Your task to perform on an android device: turn on the 24-hour format for clock Image 0: 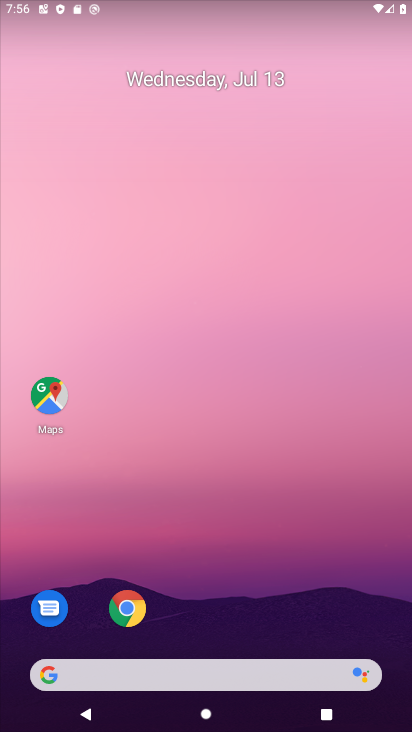
Step 0: drag from (186, 635) to (125, 95)
Your task to perform on an android device: turn on the 24-hour format for clock Image 1: 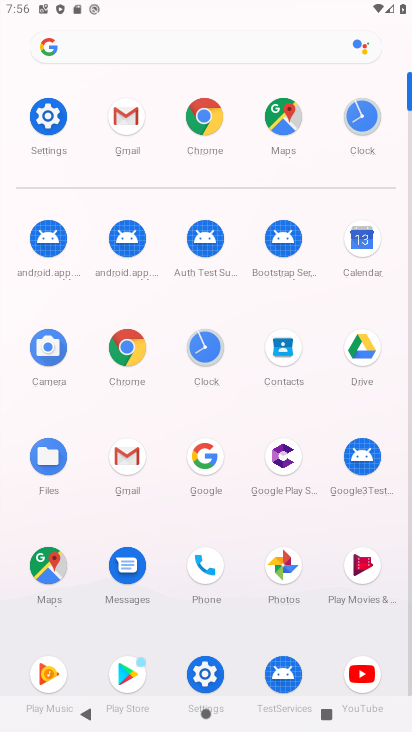
Step 1: click (189, 365)
Your task to perform on an android device: turn on the 24-hour format for clock Image 2: 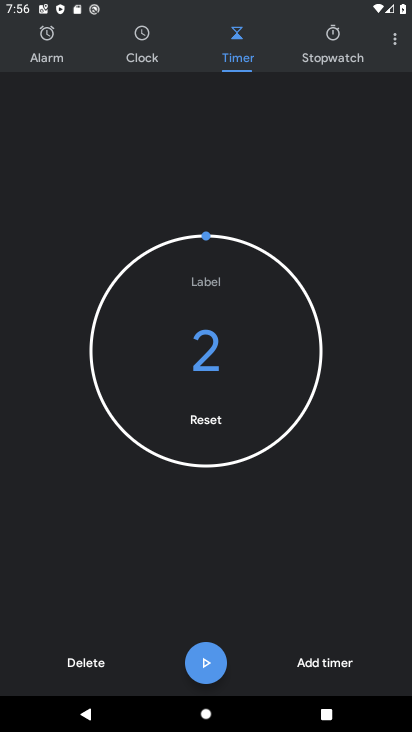
Step 2: click (388, 35)
Your task to perform on an android device: turn on the 24-hour format for clock Image 3: 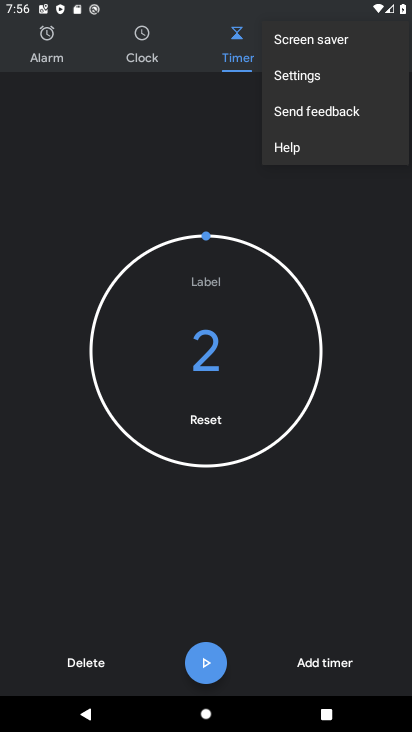
Step 3: click (307, 83)
Your task to perform on an android device: turn on the 24-hour format for clock Image 4: 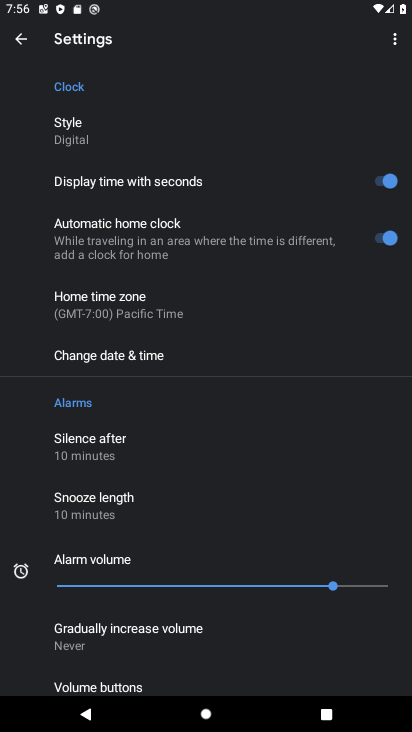
Step 4: click (157, 358)
Your task to perform on an android device: turn on the 24-hour format for clock Image 5: 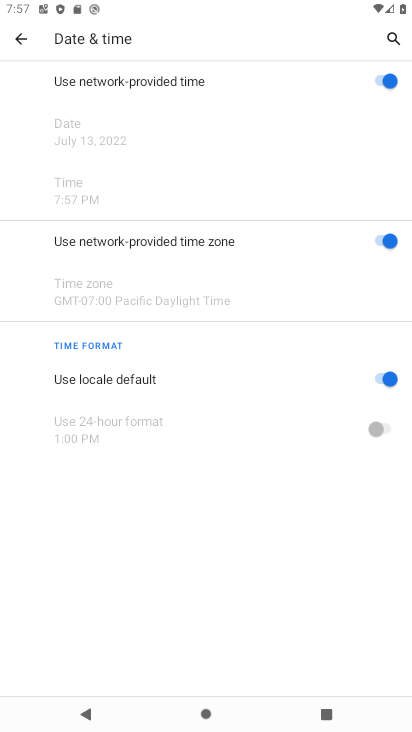
Step 5: click (374, 381)
Your task to perform on an android device: turn on the 24-hour format for clock Image 6: 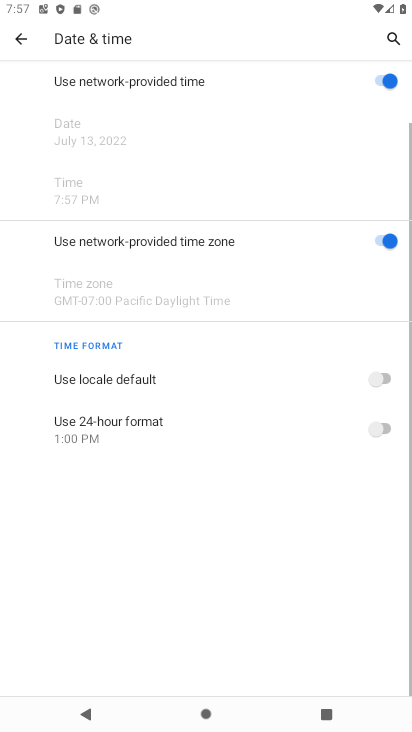
Step 6: click (386, 435)
Your task to perform on an android device: turn on the 24-hour format for clock Image 7: 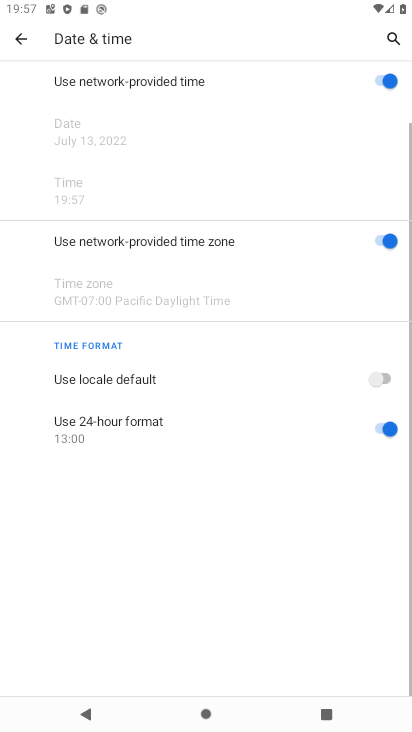
Step 7: task complete